Your task to perform on an android device: Play the last video I watched on Youtube Image 0: 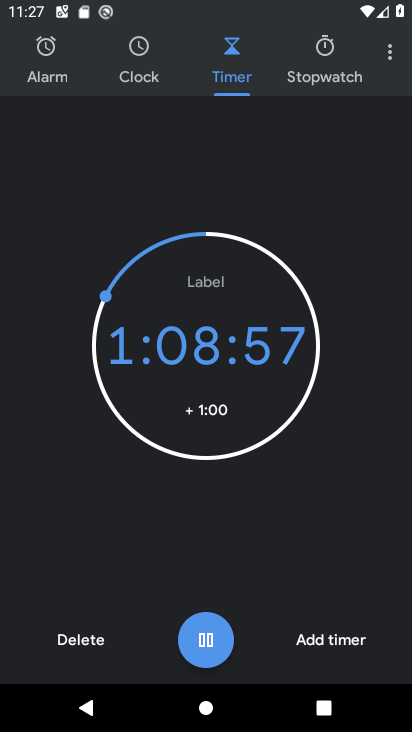
Step 0: press home button
Your task to perform on an android device: Play the last video I watched on Youtube Image 1: 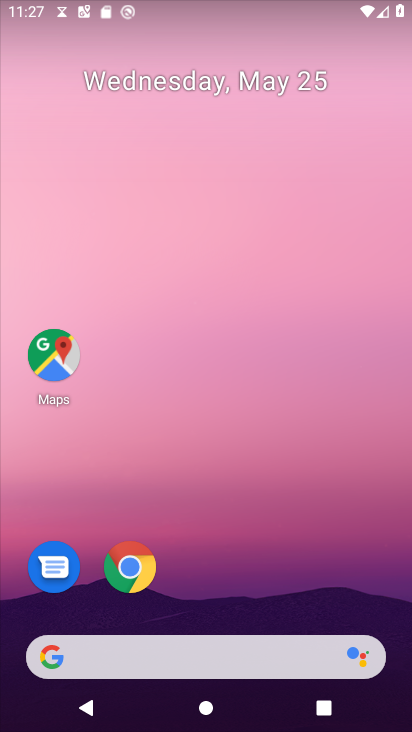
Step 1: drag from (266, 569) to (246, 3)
Your task to perform on an android device: Play the last video I watched on Youtube Image 2: 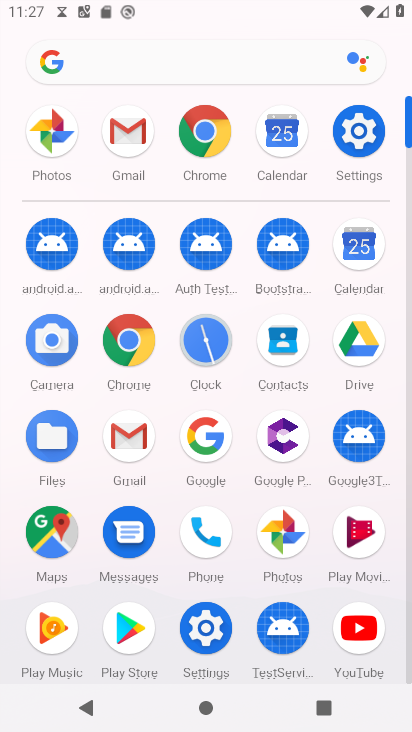
Step 2: click (367, 669)
Your task to perform on an android device: Play the last video I watched on Youtube Image 3: 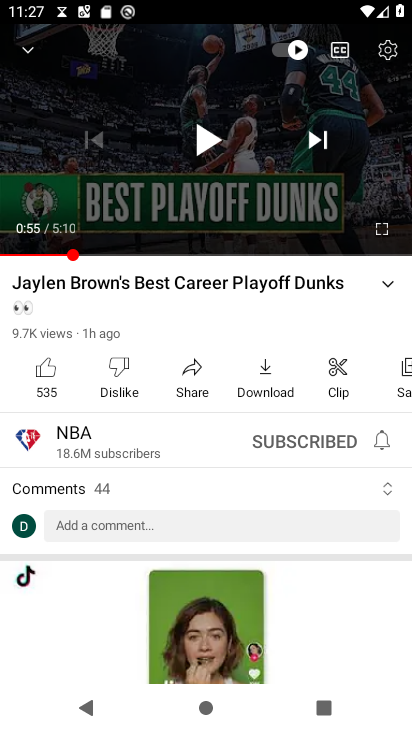
Step 3: press back button
Your task to perform on an android device: Play the last video I watched on Youtube Image 4: 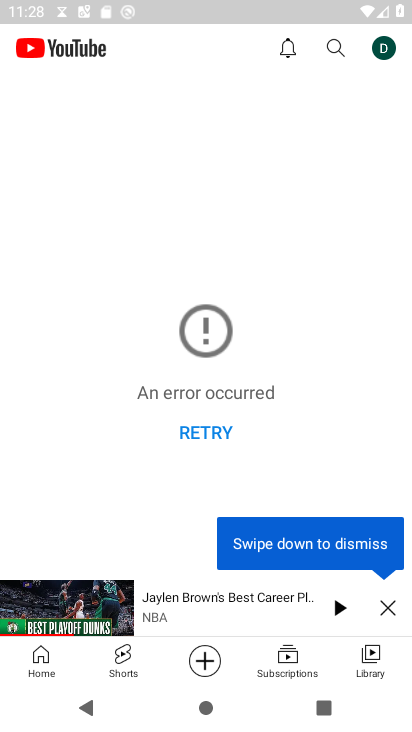
Step 4: click (195, 423)
Your task to perform on an android device: Play the last video I watched on Youtube Image 5: 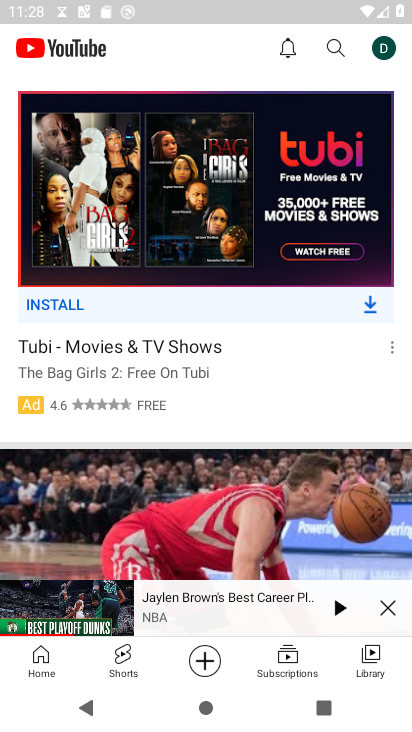
Step 5: drag from (259, 538) to (237, 198)
Your task to perform on an android device: Play the last video I watched on Youtube Image 6: 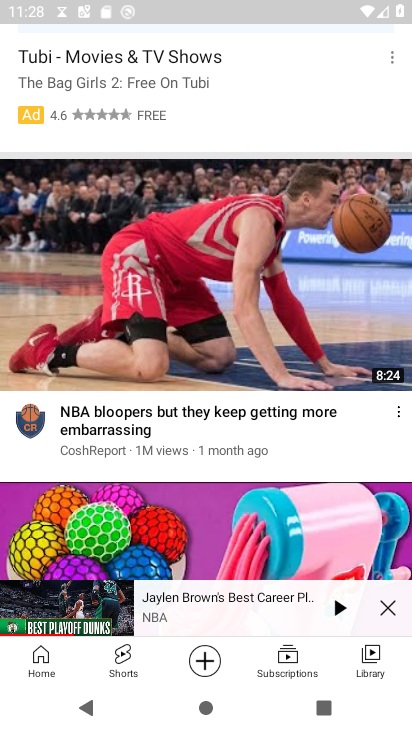
Step 6: click (401, 670)
Your task to perform on an android device: Play the last video I watched on Youtube Image 7: 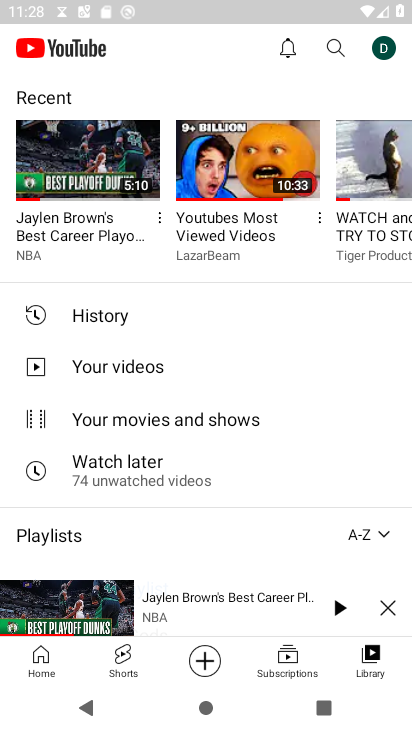
Step 7: click (120, 169)
Your task to perform on an android device: Play the last video I watched on Youtube Image 8: 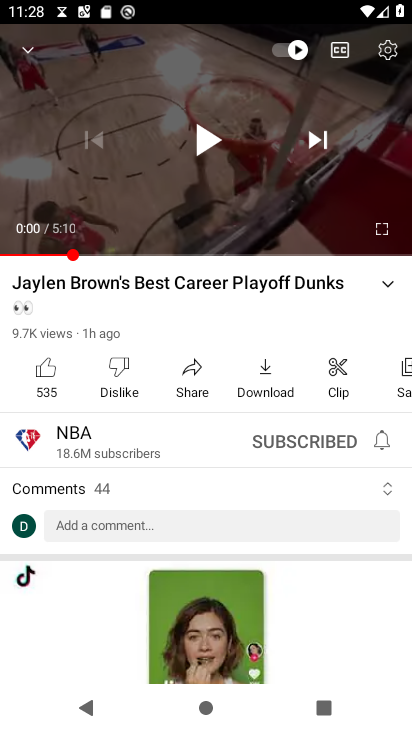
Step 8: click (190, 147)
Your task to perform on an android device: Play the last video I watched on Youtube Image 9: 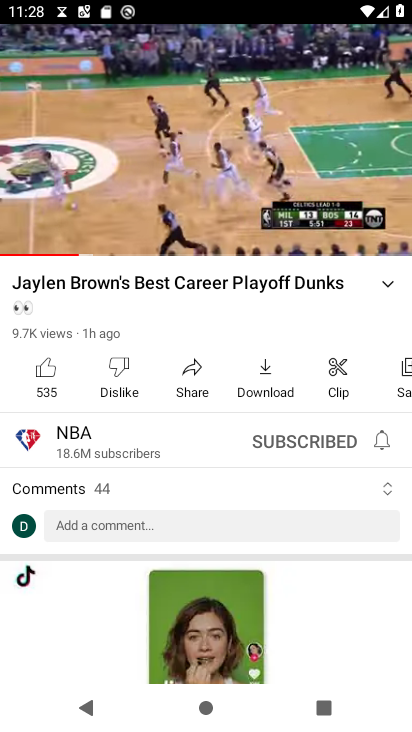
Step 9: task complete